Your task to perform on an android device: turn on priority inbox in the gmail app Image 0: 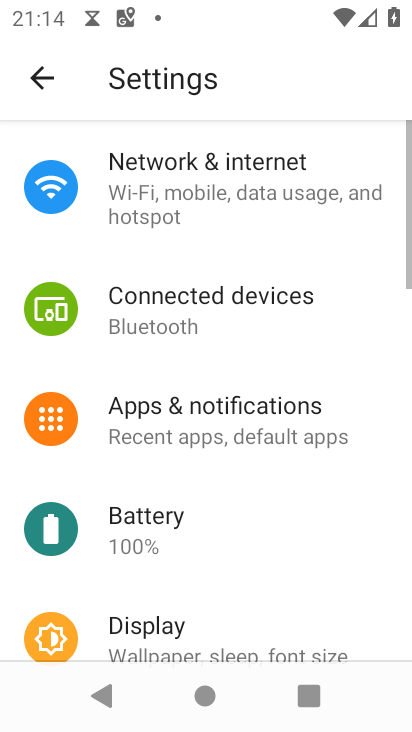
Step 0: press home button
Your task to perform on an android device: turn on priority inbox in the gmail app Image 1: 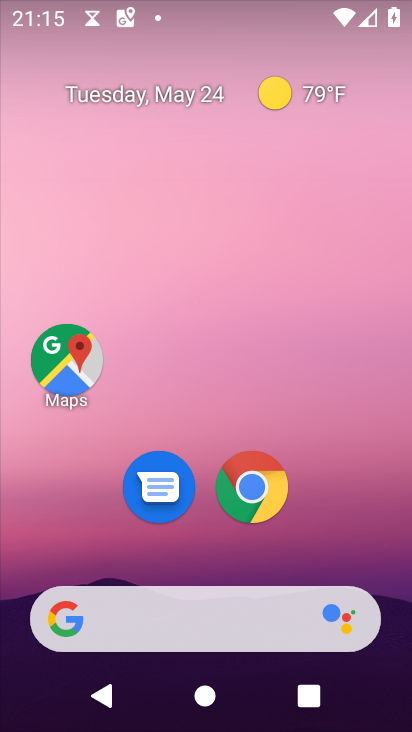
Step 1: drag from (342, 534) to (331, 86)
Your task to perform on an android device: turn on priority inbox in the gmail app Image 2: 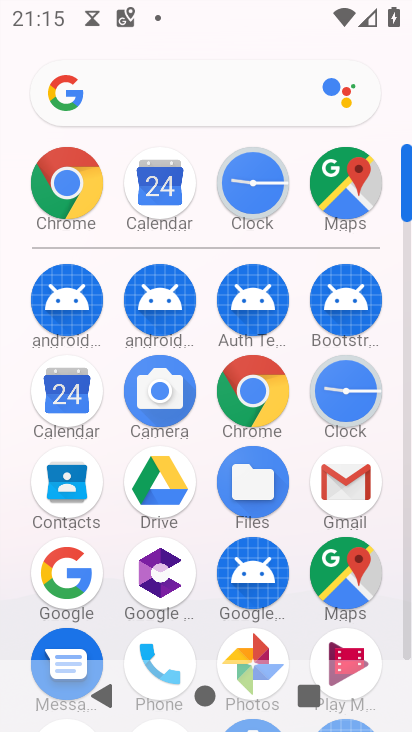
Step 2: click (371, 461)
Your task to perform on an android device: turn on priority inbox in the gmail app Image 3: 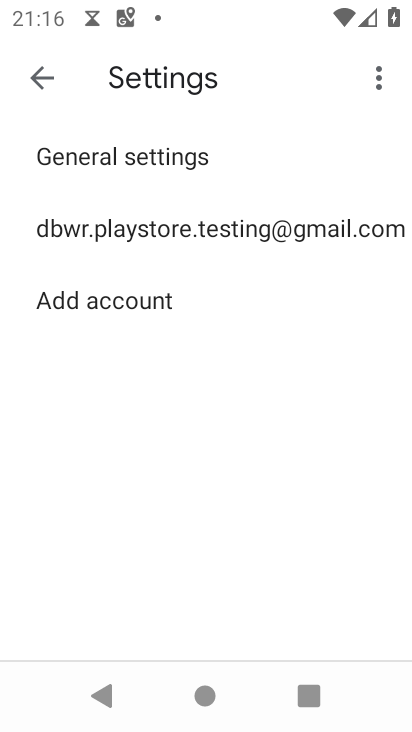
Step 3: click (299, 227)
Your task to perform on an android device: turn on priority inbox in the gmail app Image 4: 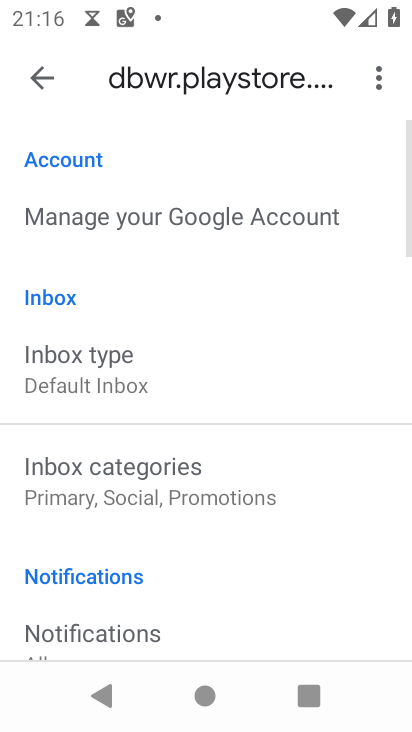
Step 4: click (135, 363)
Your task to perform on an android device: turn on priority inbox in the gmail app Image 5: 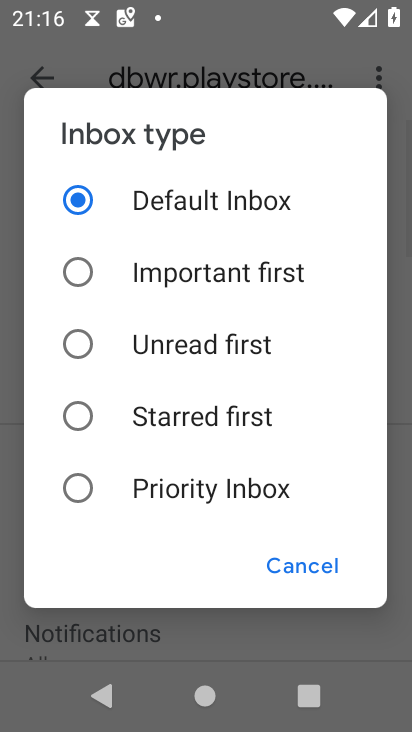
Step 5: click (137, 509)
Your task to perform on an android device: turn on priority inbox in the gmail app Image 6: 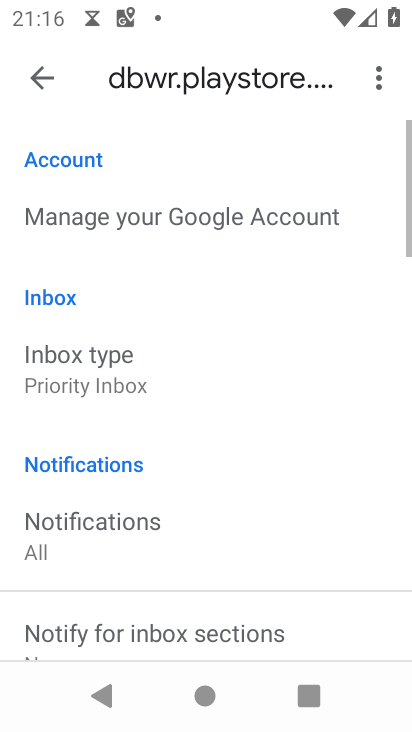
Step 6: task complete